Your task to perform on an android device: Open calendar and show me the fourth week of next month Image 0: 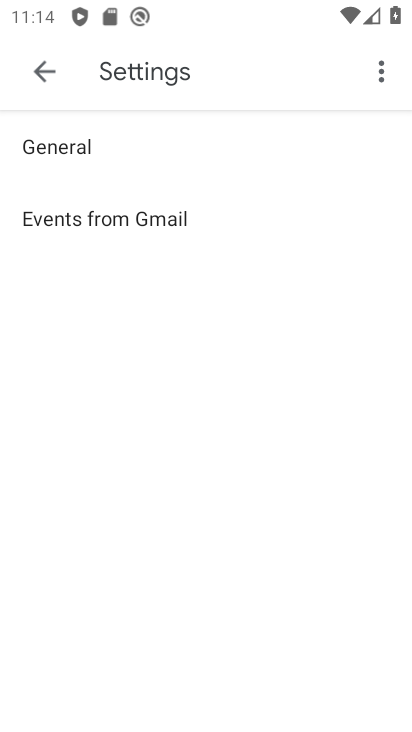
Step 0: press home button
Your task to perform on an android device: Open calendar and show me the fourth week of next month Image 1: 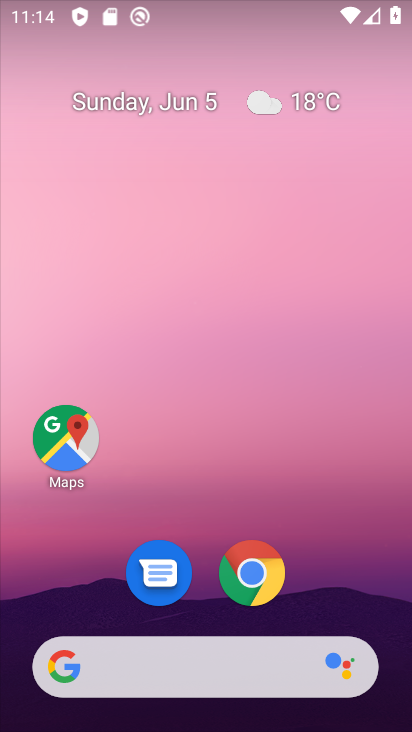
Step 1: drag from (191, 661) to (79, 81)
Your task to perform on an android device: Open calendar and show me the fourth week of next month Image 2: 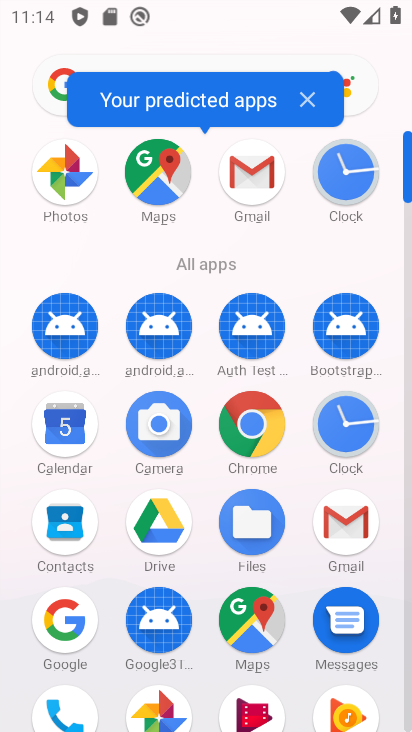
Step 2: click (56, 421)
Your task to perform on an android device: Open calendar and show me the fourth week of next month Image 3: 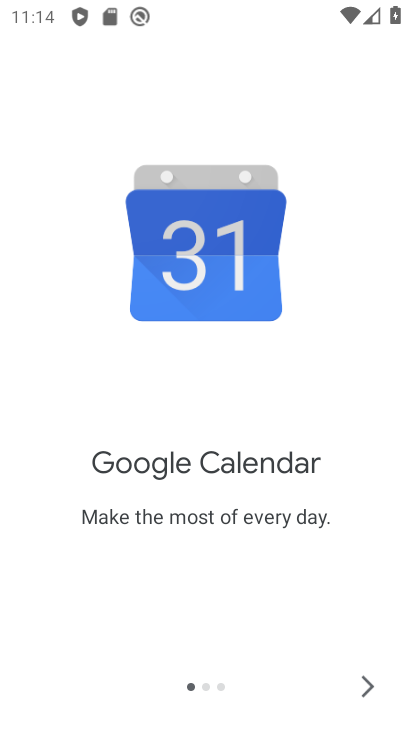
Step 3: click (359, 674)
Your task to perform on an android device: Open calendar and show me the fourth week of next month Image 4: 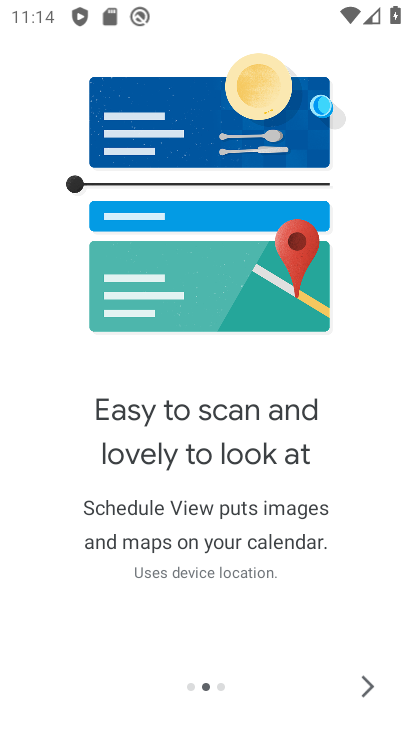
Step 4: click (359, 674)
Your task to perform on an android device: Open calendar and show me the fourth week of next month Image 5: 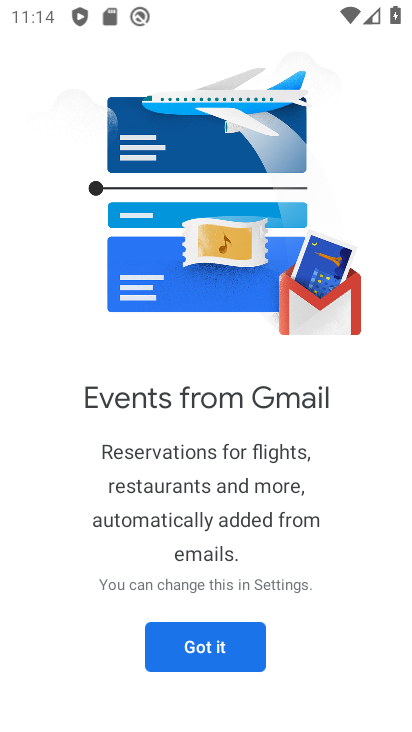
Step 5: click (214, 635)
Your task to perform on an android device: Open calendar and show me the fourth week of next month Image 6: 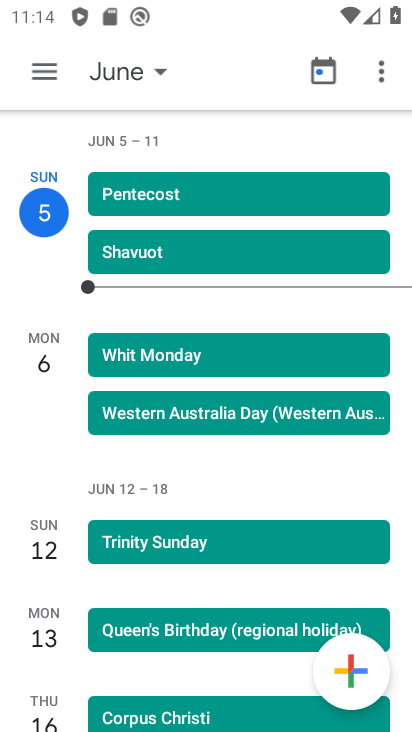
Step 6: drag from (214, 635) to (178, 88)
Your task to perform on an android device: Open calendar and show me the fourth week of next month Image 7: 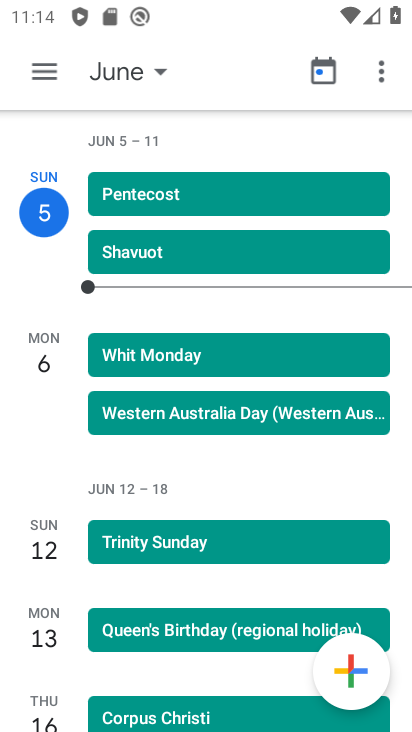
Step 7: click (178, 88)
Your task to perform on an android device: Open calendar and show me the fourth week of next month Image 8: 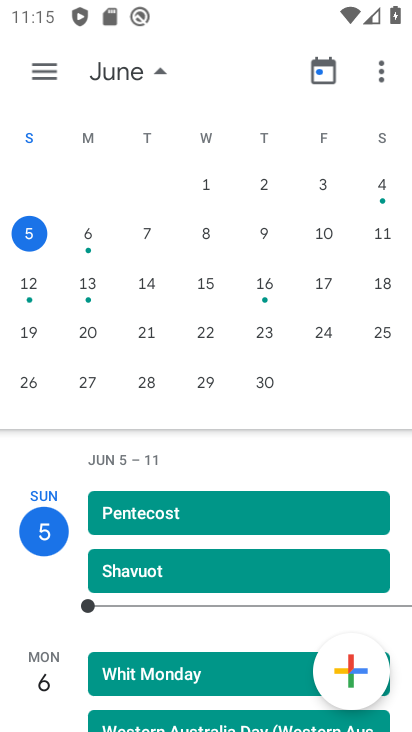
Step 8: task complete